Your task to perform on an android device: Toggle the flashlight Image 0: 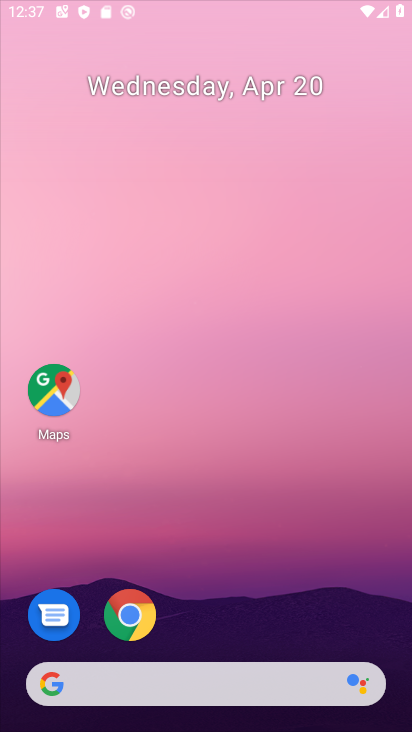
Step 0: task impossible